Your task to perform on an android device: delete browsing data in the chrome app Image 0: 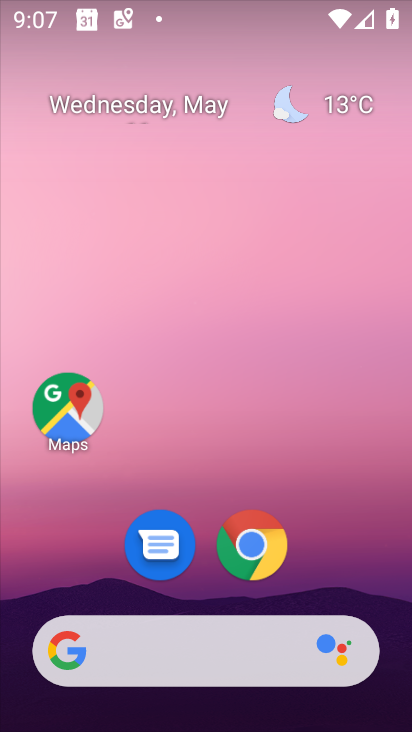
Step 0: drag from (310, 541) to (162, 0)
Your task to perform on an android device: delete browsing data in the chrome app Image 1: 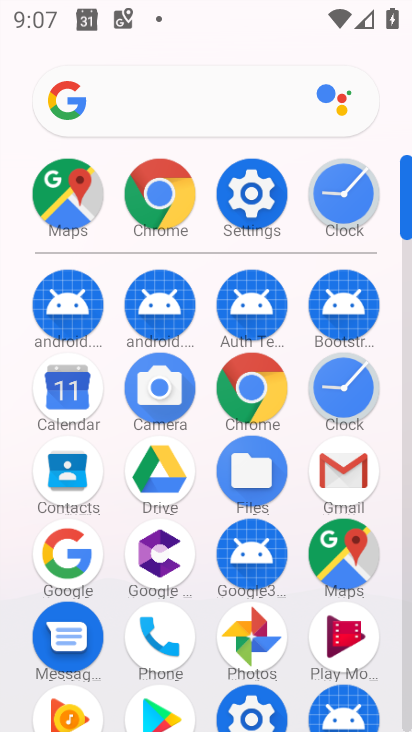
Step 1: drag from (19, 532) to (7, 211)
Your task to perform on an android device: delete browsing data in the chrome app Image 2: 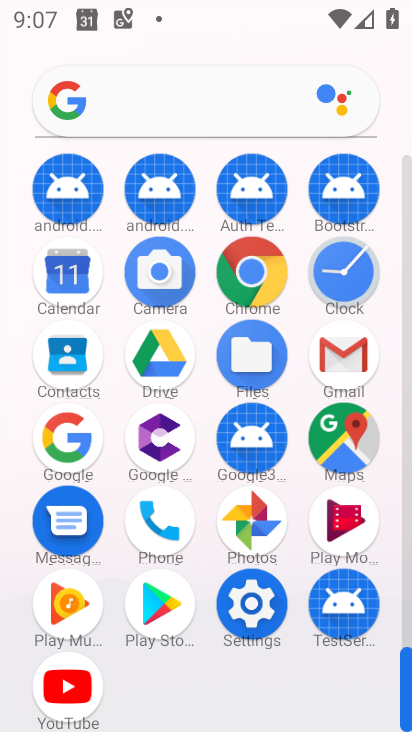
Step 2: click (250, 265)
Your task to perform on an android device: delete browsing data in the chrome app Image 3: 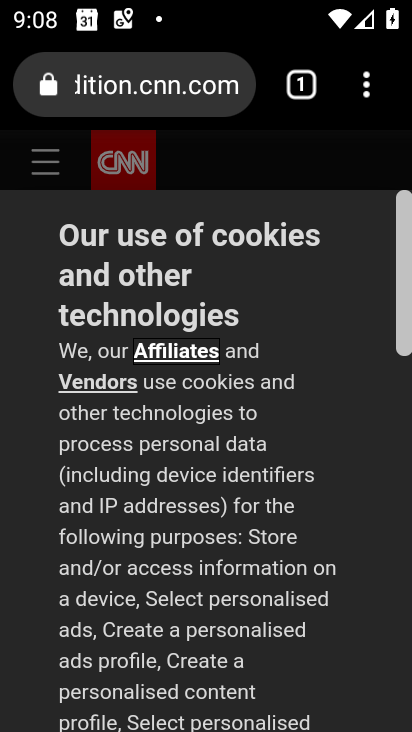
Step 3: drag from (364, 92) to (104, 468)
Your task to perform on an android device: delete browsing data in the chrome app Image 4: 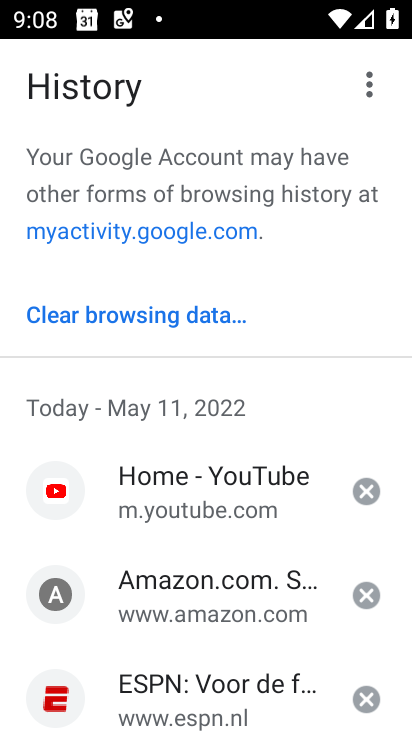
Step 4: click (135, 312)
Your task to perform on an android device: delete browsing data in the chrome app Image 5: 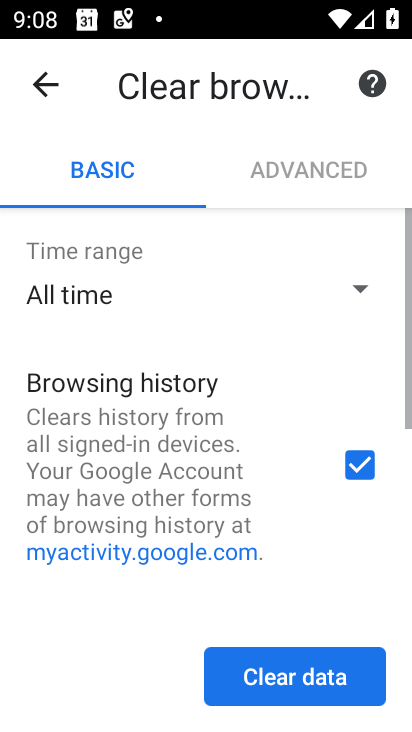
Step 5: click (308, 663)
Your task to perform on an android device: delete browsing data in the chrome app Image 6: 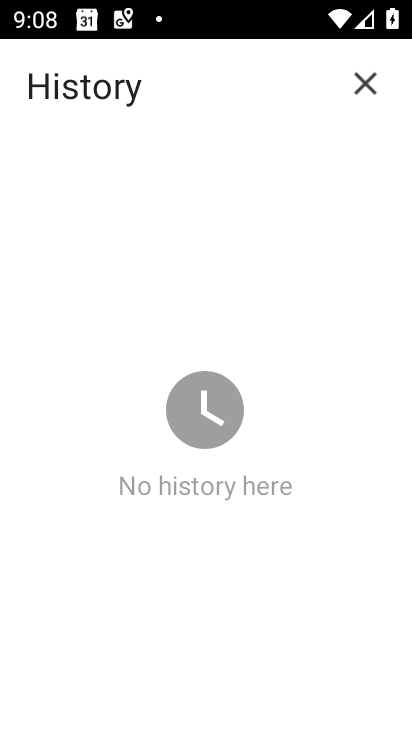
Step 6: task complete